Your task to perform on an android device: turn on bluetooth scan Image 0: 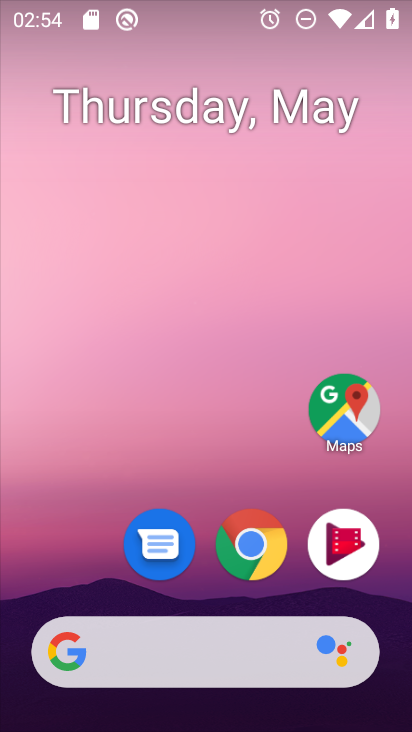
Step 0: drag from (208, 475) to (209, 190)
Your task to perform on an android device: turn on bluetooth scan Image 1: 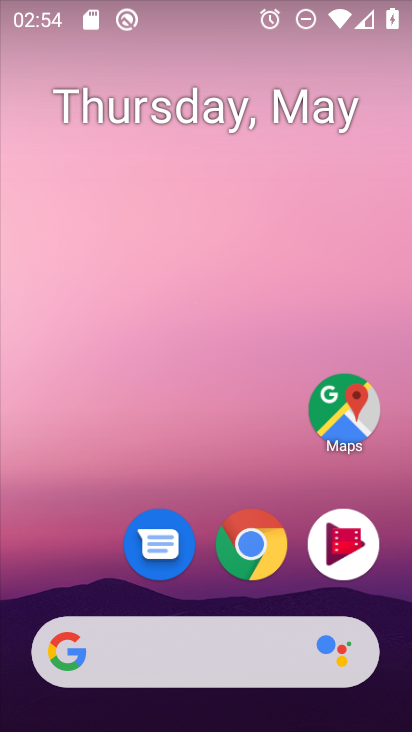
Step 1: drag from (192, 481) to (196, 178)
Your task to perform on an android device: turn on bluetooth scan Image 2: 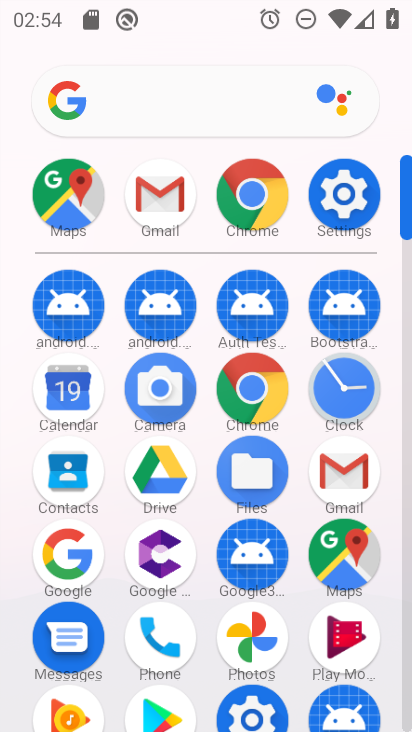
Step 2: click (373, 202)
Your task to perform on an android device: turn on bluetooth scan Image 3: 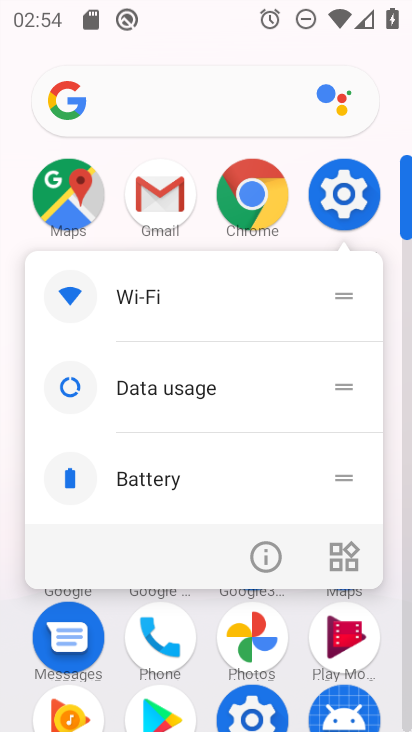
Step 3: click (373, 202)
Your task to perform on an android device: turn on bluetooth scan Image 4: 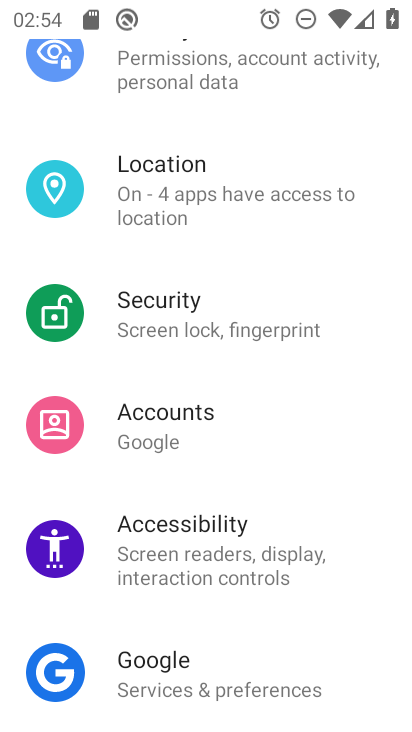
Step 4: drag from (368, 610) to (356, 463)
Your task to perform on an android device: turn on bluetooth scan Image 5: 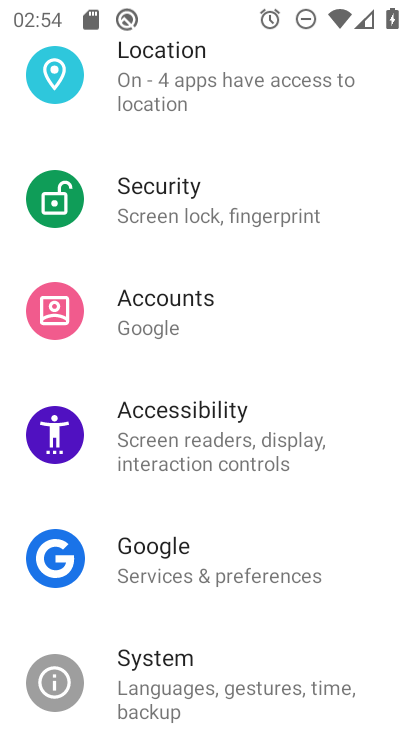
Step 5: drag from (348, 661) to (348, 511)
Your task to perform on an android device: turn on bluetooth scan Image 6: 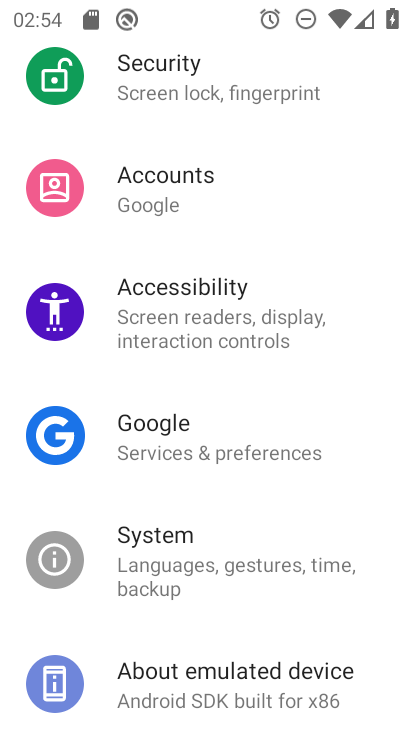
Step 6: drag from (351, 696) to (356, 511)
Your task to perform on an android device: turn on bluetooth scan Image 7: 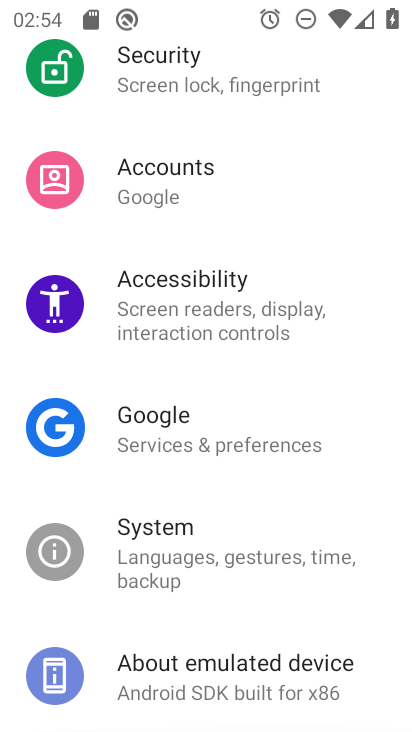
Step 7: drag from (360, 423) to (360, 526)
Your task to perform on an android device: turn on bluetooth scan Image 8: 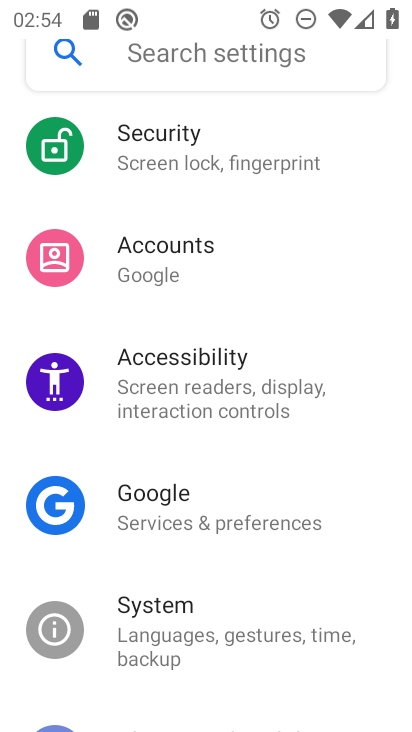
Step 8: drag from (360, 424) to (367, 513)
Your task to perform on an android device: turn on bluetooth scan Image 9: 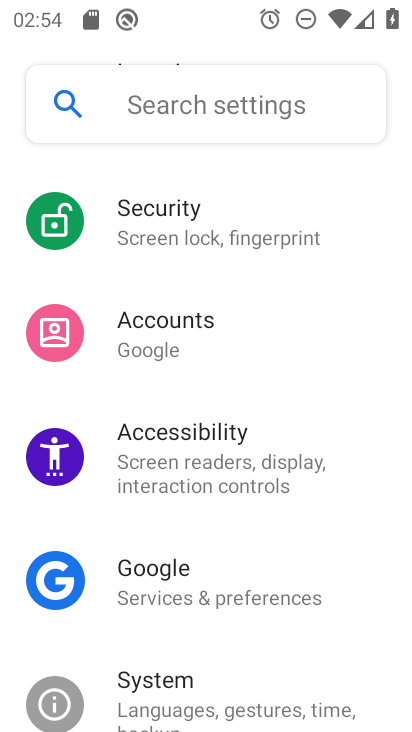
Step 9: drag from (348, 425) to (348, 549)
Your task to perform on an android device: turn on bluetooth scan Image 10: 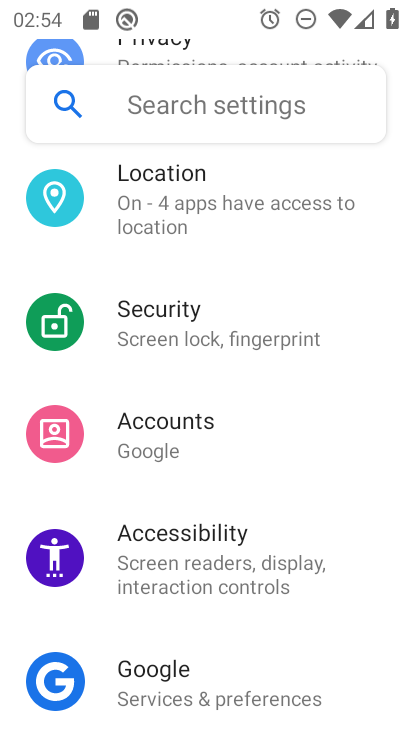
Step 10: drag from (343, 403) to (344, 504)
Your task to perform on an android device: turn on bluetooth scan Image 11: 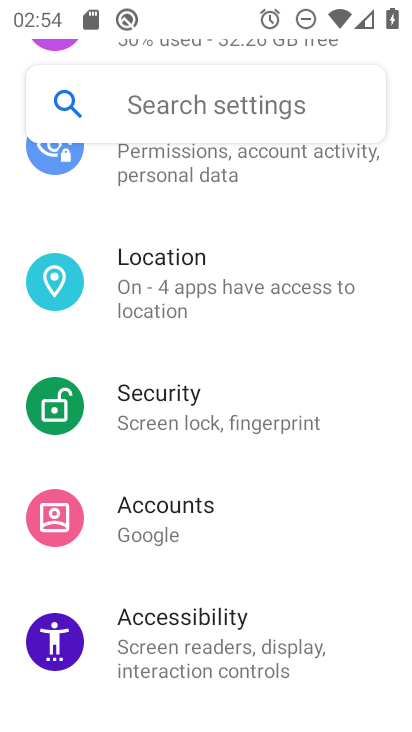
Step 11: drag from (344, 369) to (346, 483)
Your task to perform on an android device: turn on bluetooth scan Image 12: 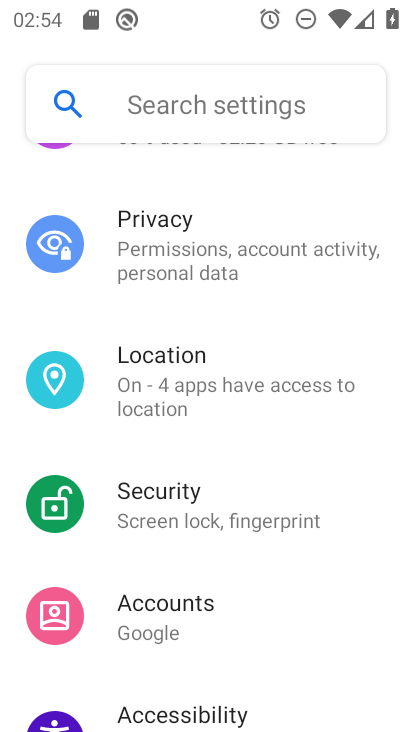
Step 12: drag from (355, 325) to (355, 414)
Your task to perform on an android device: turn on bluetooth scan Image 13: 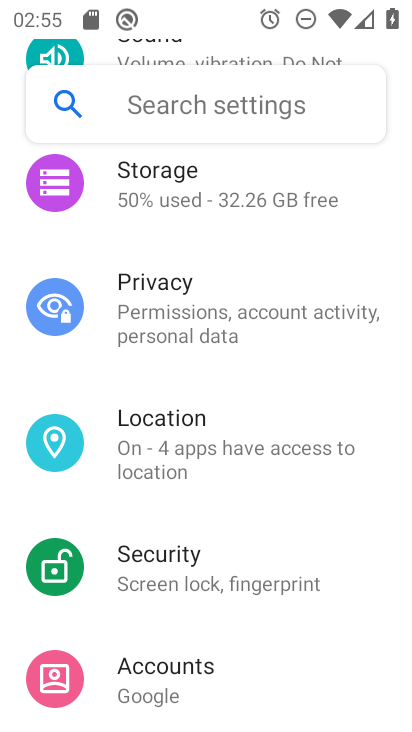
Step 13: click (330, 459)
Your task to perform on an android device: turn on bluetooth scan Image 14: 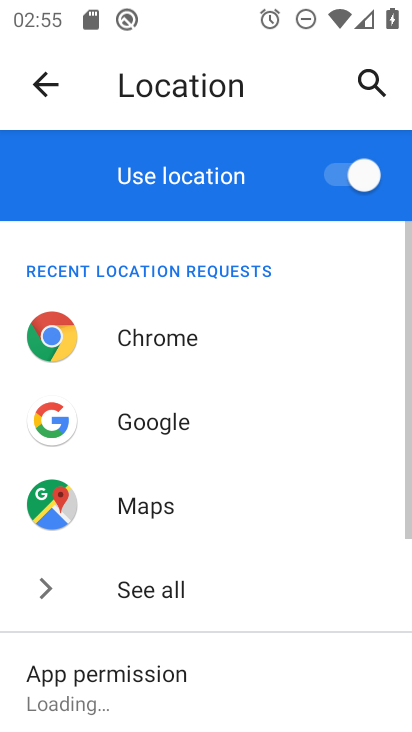
Step 14: drag from (322, 599) to (322, 430)
Your task to perform on an android device: turn on bluetooth scan Image 15: 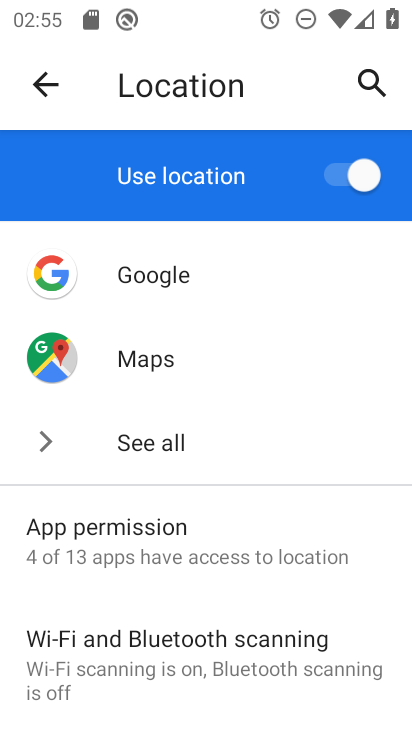
Step 15: drag from (316, 624) to (318, 486)
Your task to perform on an android device: turn on bluetooth scan Image 16: 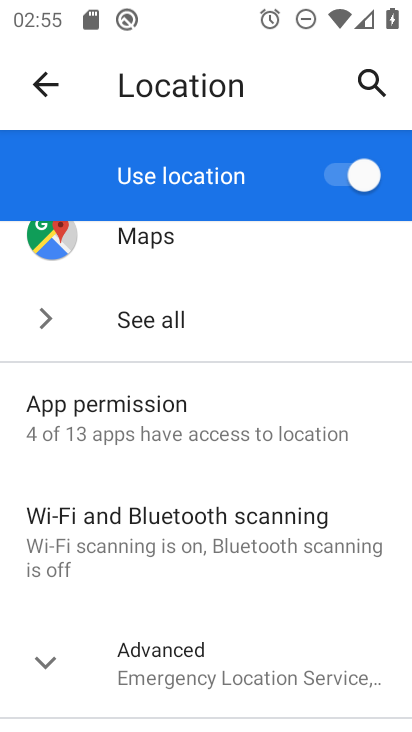
Step 16: drag from (305, 613) to (307, 535)
Your task to perform on an android device: turn on bluetooth scan Image 17: 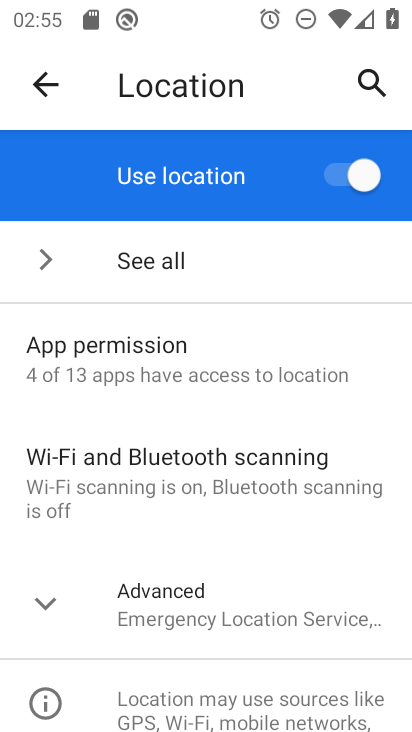
Step 17: drag from (284, 574) to (283, 385)
Your task to perform on an android device: turn on bluetooth scan Image 18: 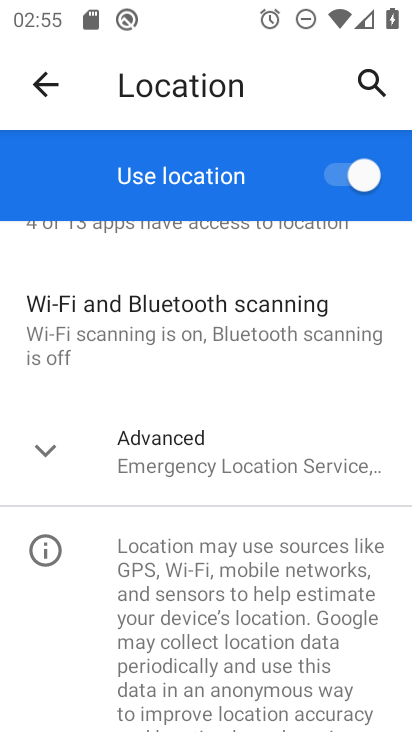
Step 18: click (266, 333)
Your task to perform on an android device: turn on bluetooth scan Image 19: 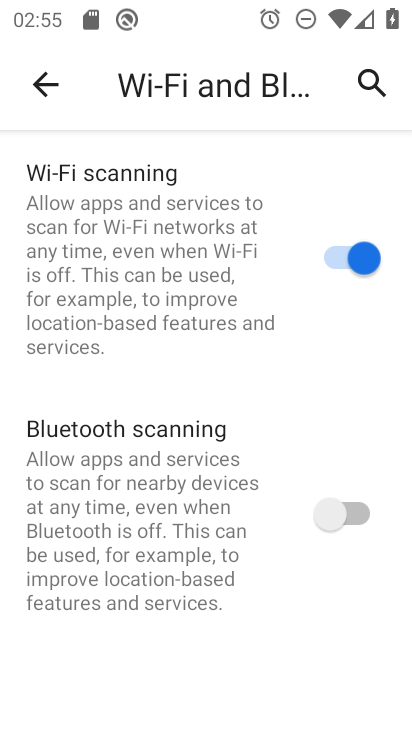
Step 19: drag from (285, 656) to (284, 444)
Your task to perform on an android device: turn on bluetooth scan Image 20: 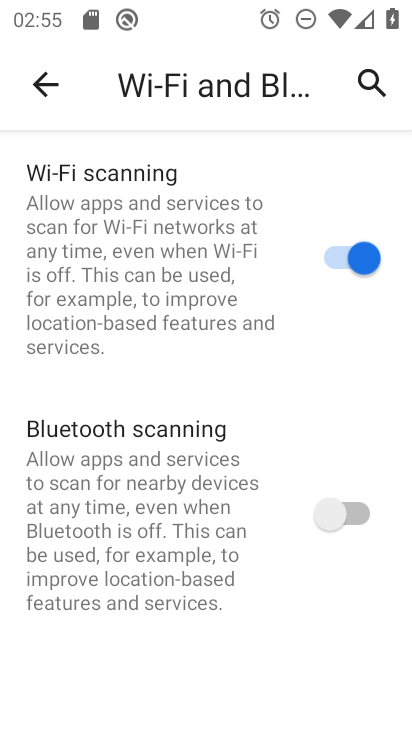
Step 20: click (351, 527)
Your task to perform on an android device: turn on bluetooth scan Image 21: 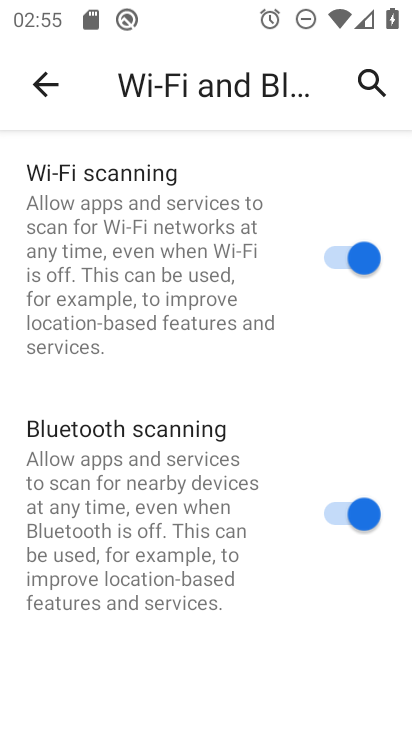
Step 21: task complete